Your task to perform on an android device: What's the weather going to be tomorrow? Image 0: 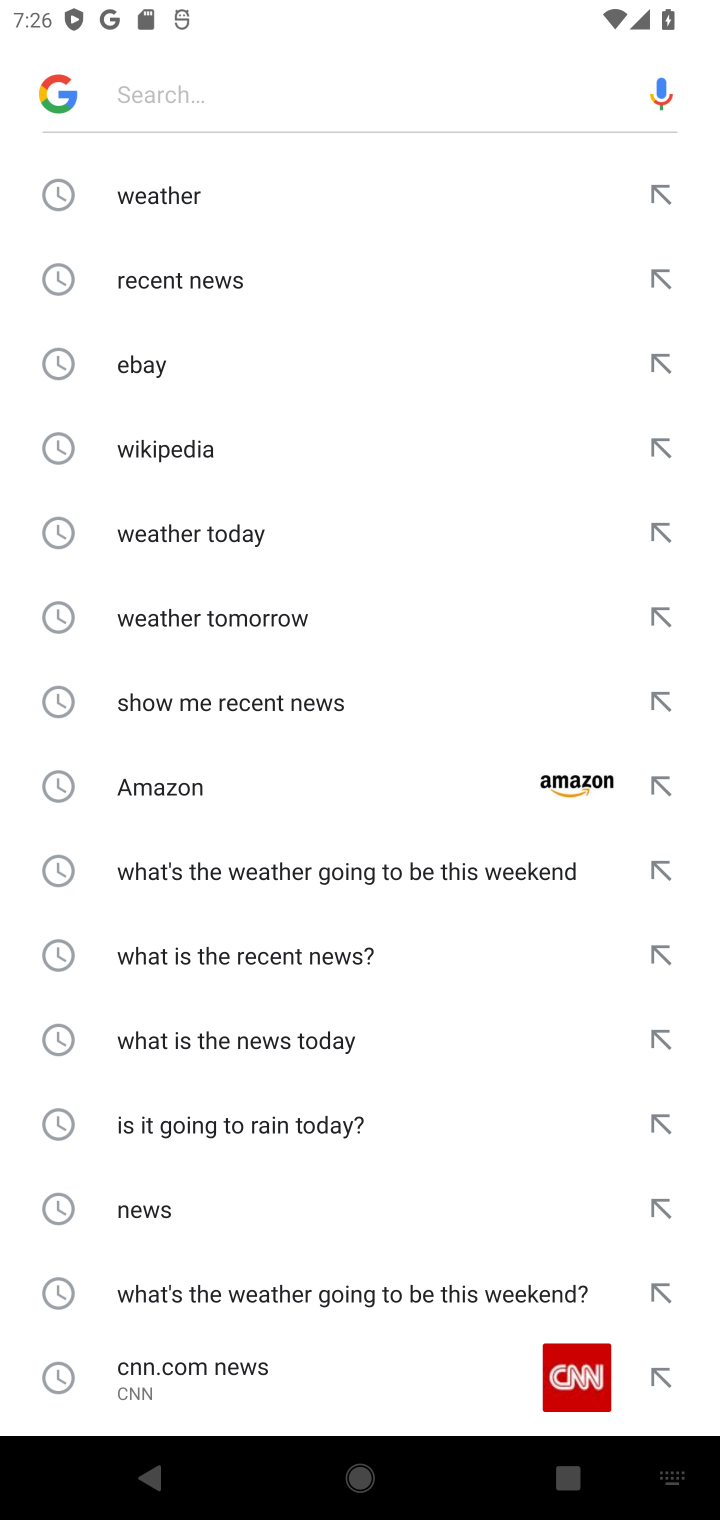
Step 0: press home button
Your task to perform on an android device: What's the weather going to be tomorrow? Image 1: 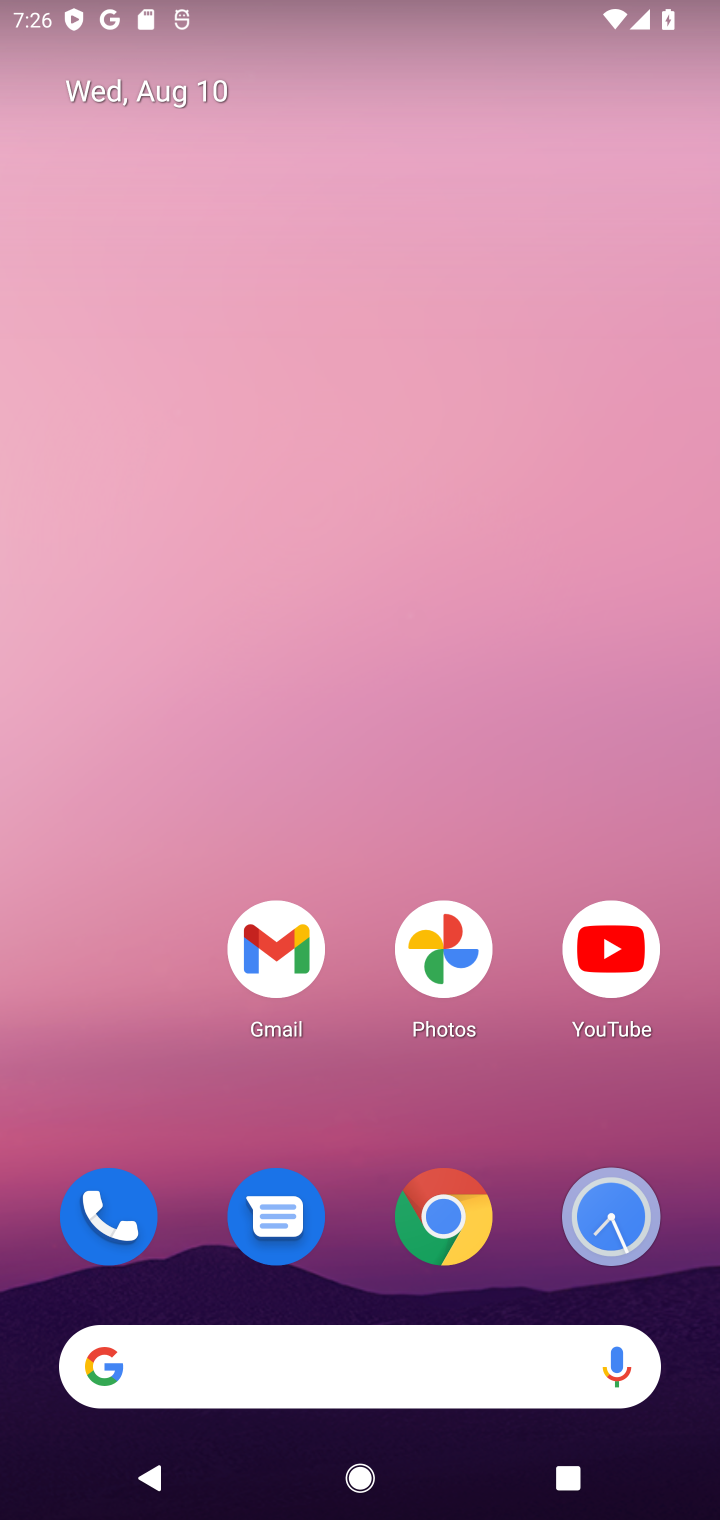
Step 1: click (390, 1380)
Your task to perform on an android device: What's the weather going to be tomorrow? Image 2: 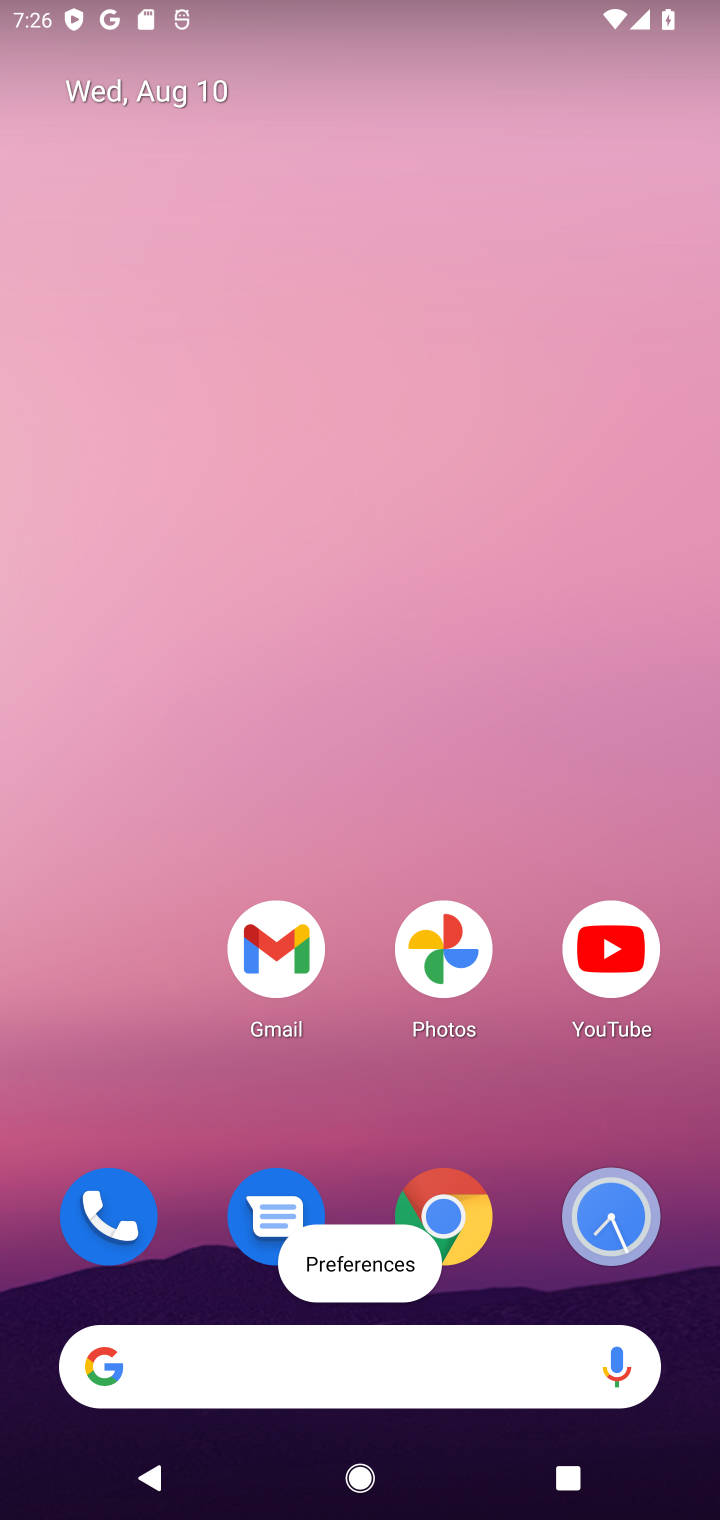
Step 2: click (280, 1368)
Your task to perform on an android device: What's the weather going to be tomorrow? Image 3: 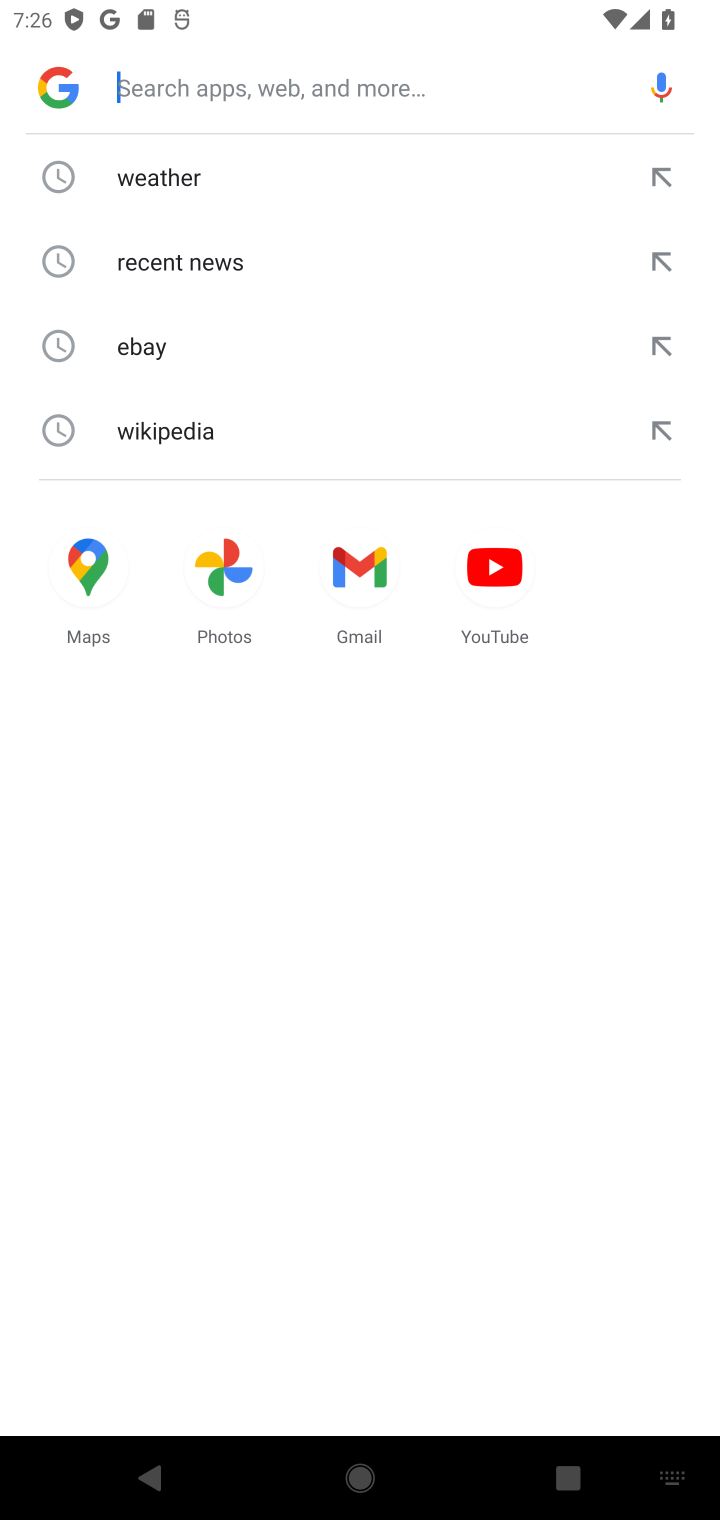
Step 3: click (200, 186)
Your task to perform on an android device: What's the weather going to be tomorrow? Image 4: 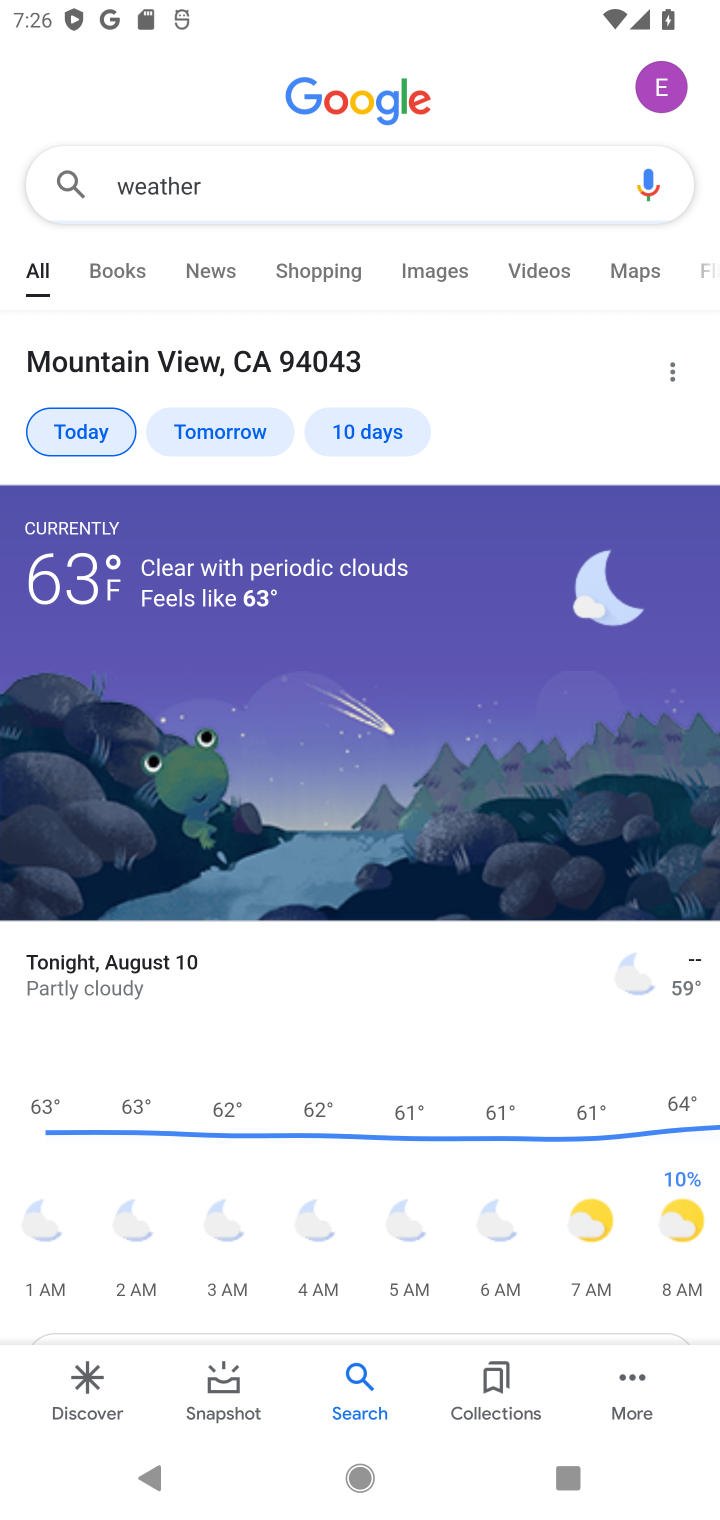
Step 4: click (250, 445)
Your task to perform on an android device: What's the weather going to be tomorrow? Image 5: 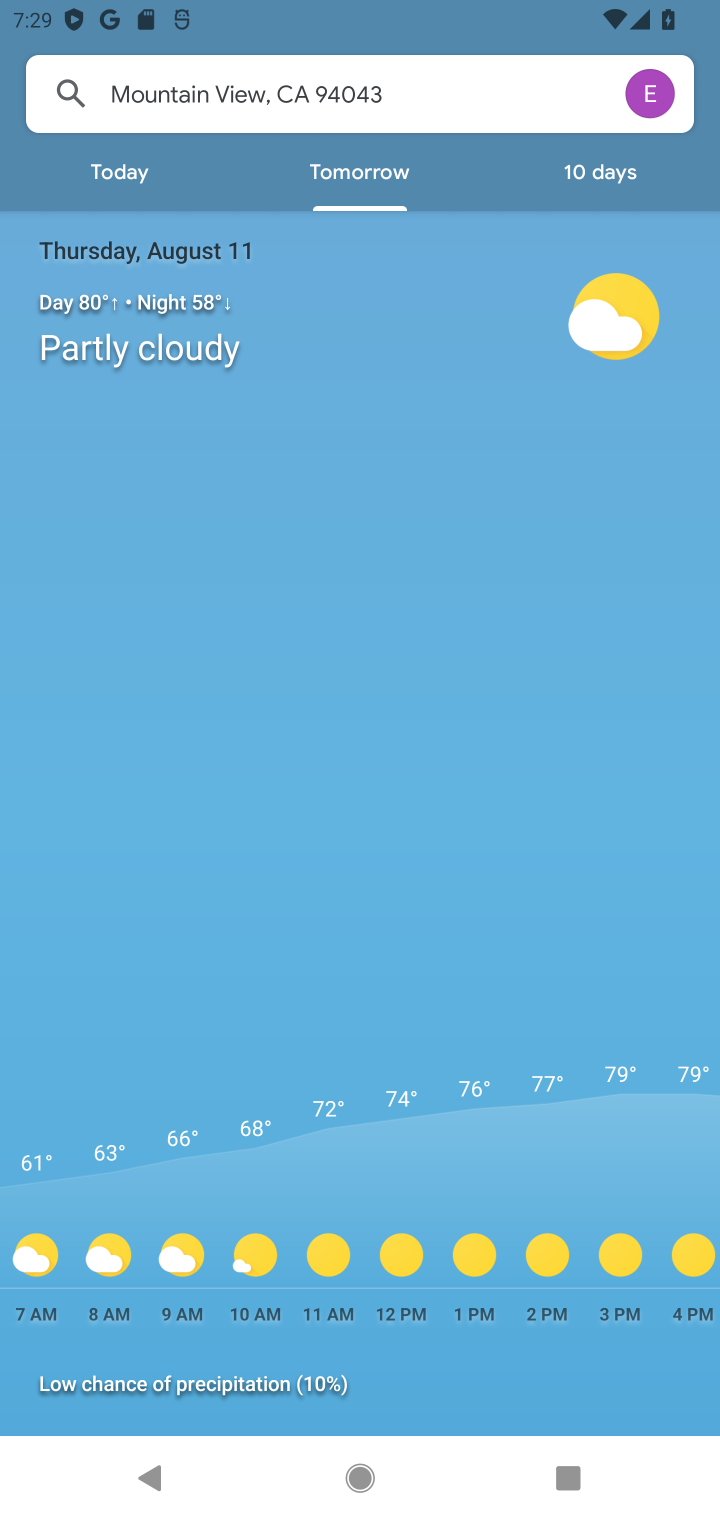
Step 5: press home button
Your task to perform on an android device: What's the weather going to be tomorrow? Image 6: 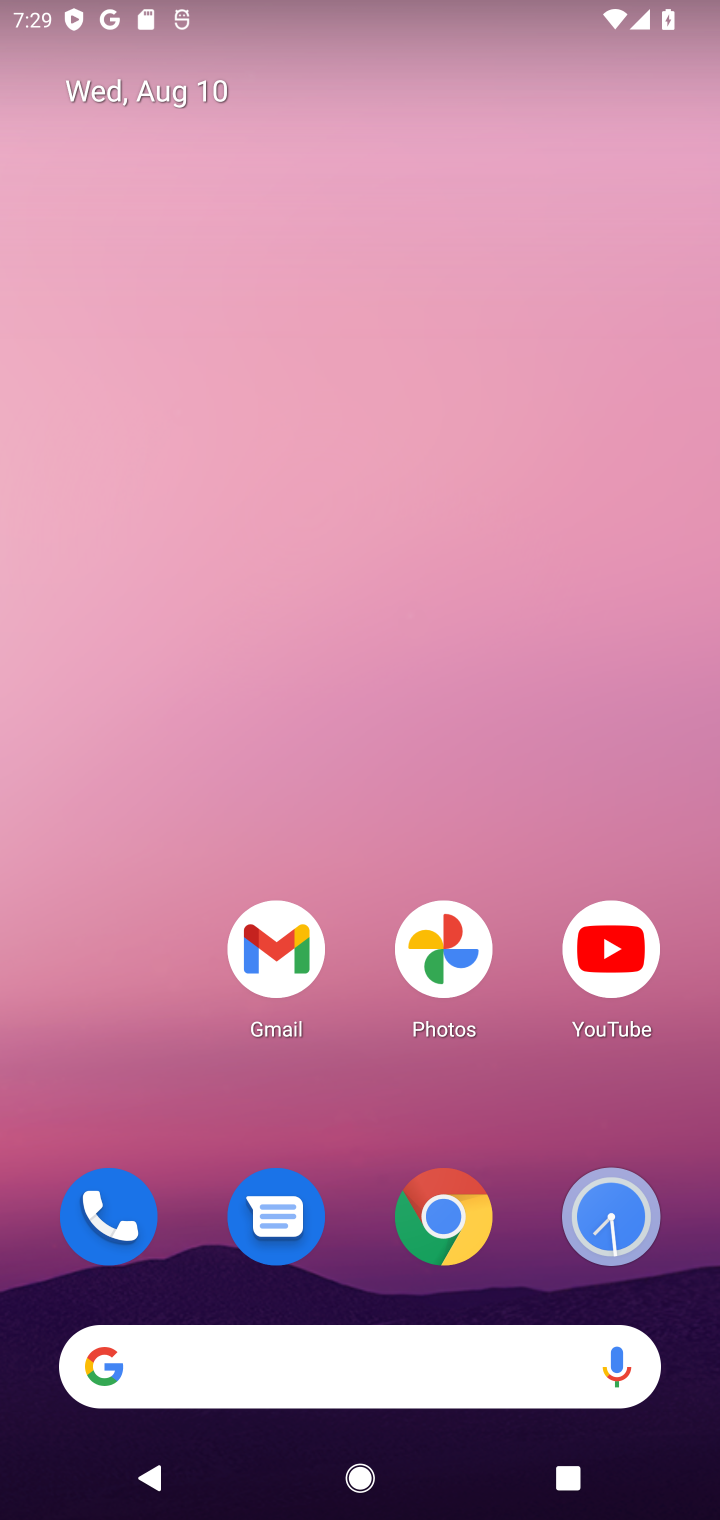
Step 6: click (343, 1368)
Your task to perform on an android device: What's the weather going to be tomorrow? Image 7: 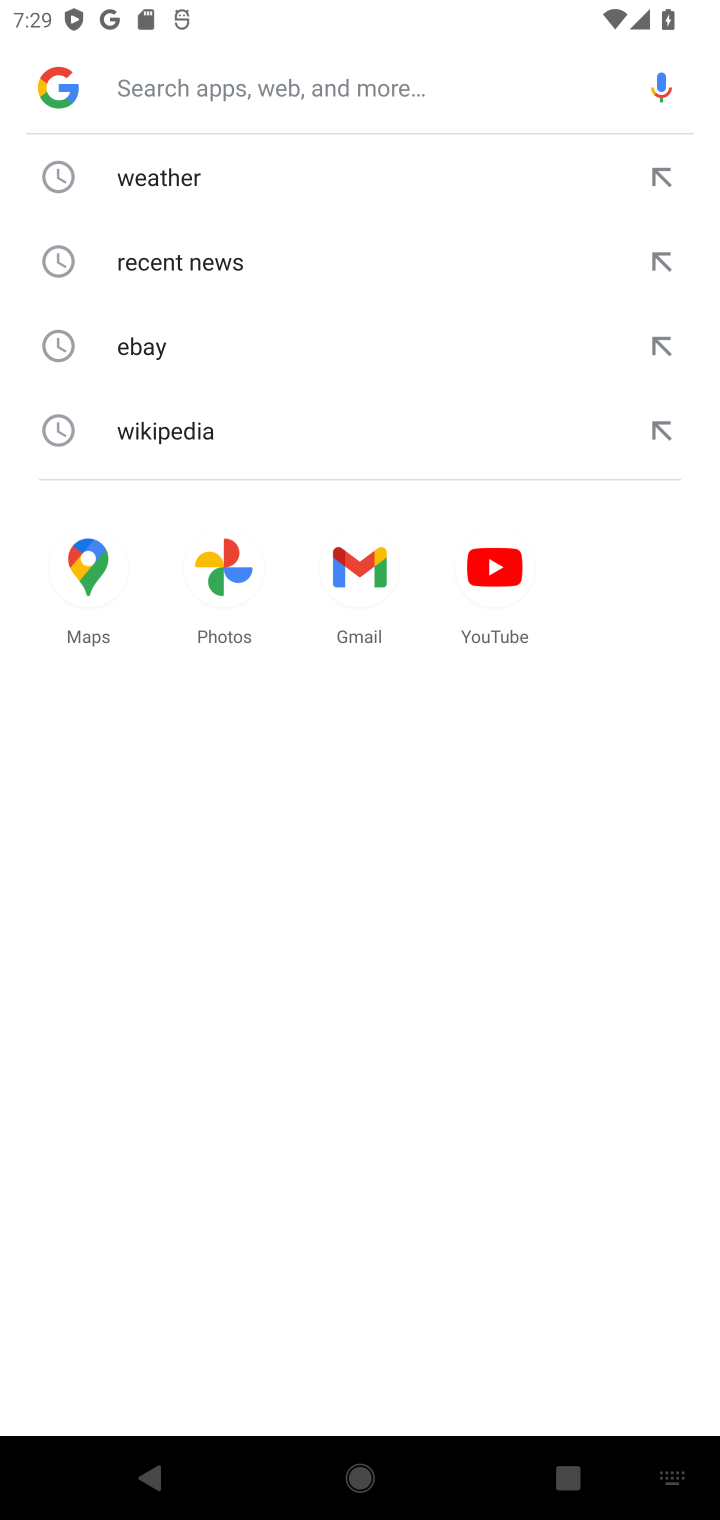
Step 7: click (284, 188)
Your task to perform on an android device: What's the weather going to be tomorrow? Image 8: 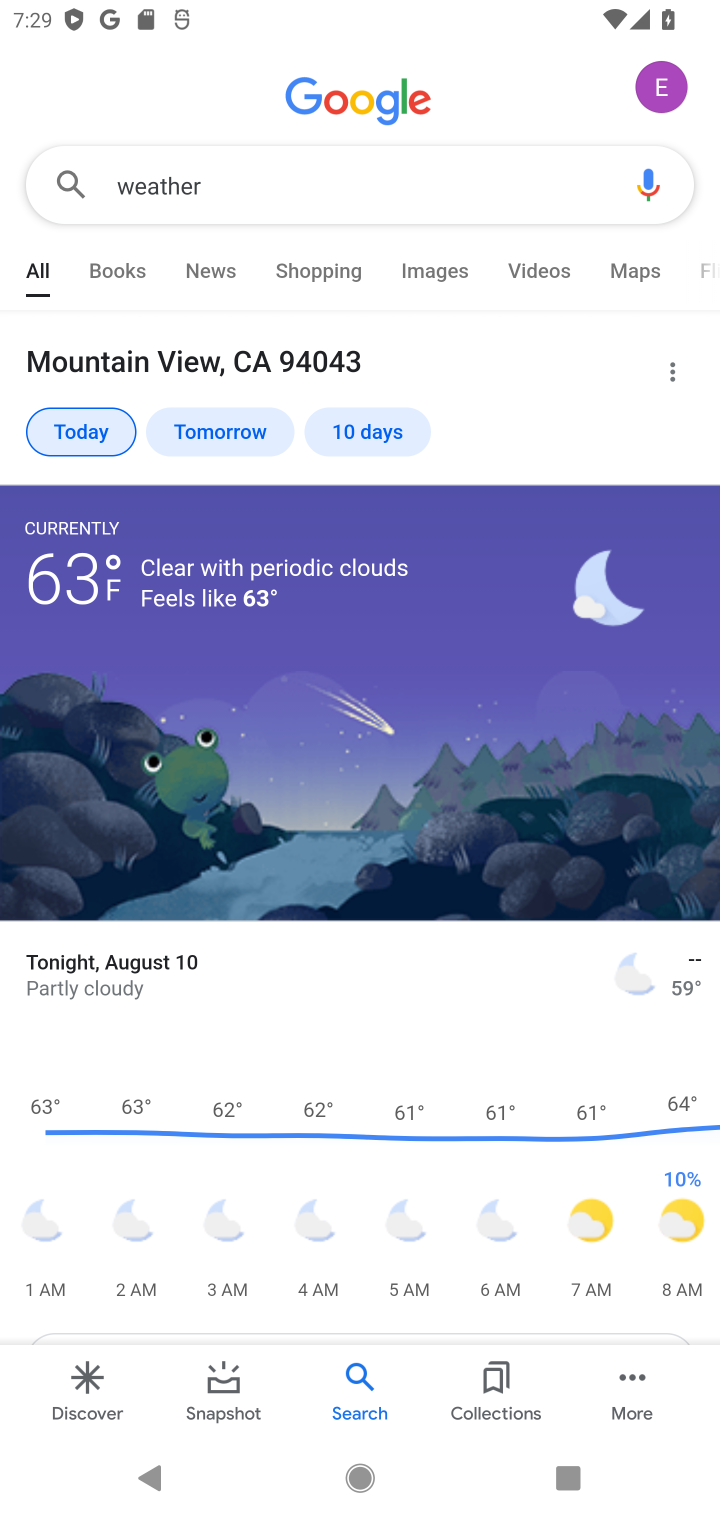
Step 8: click (229, 431)
Your task to perform on an android device: What's the weather going to be tomorrow? Image 9: 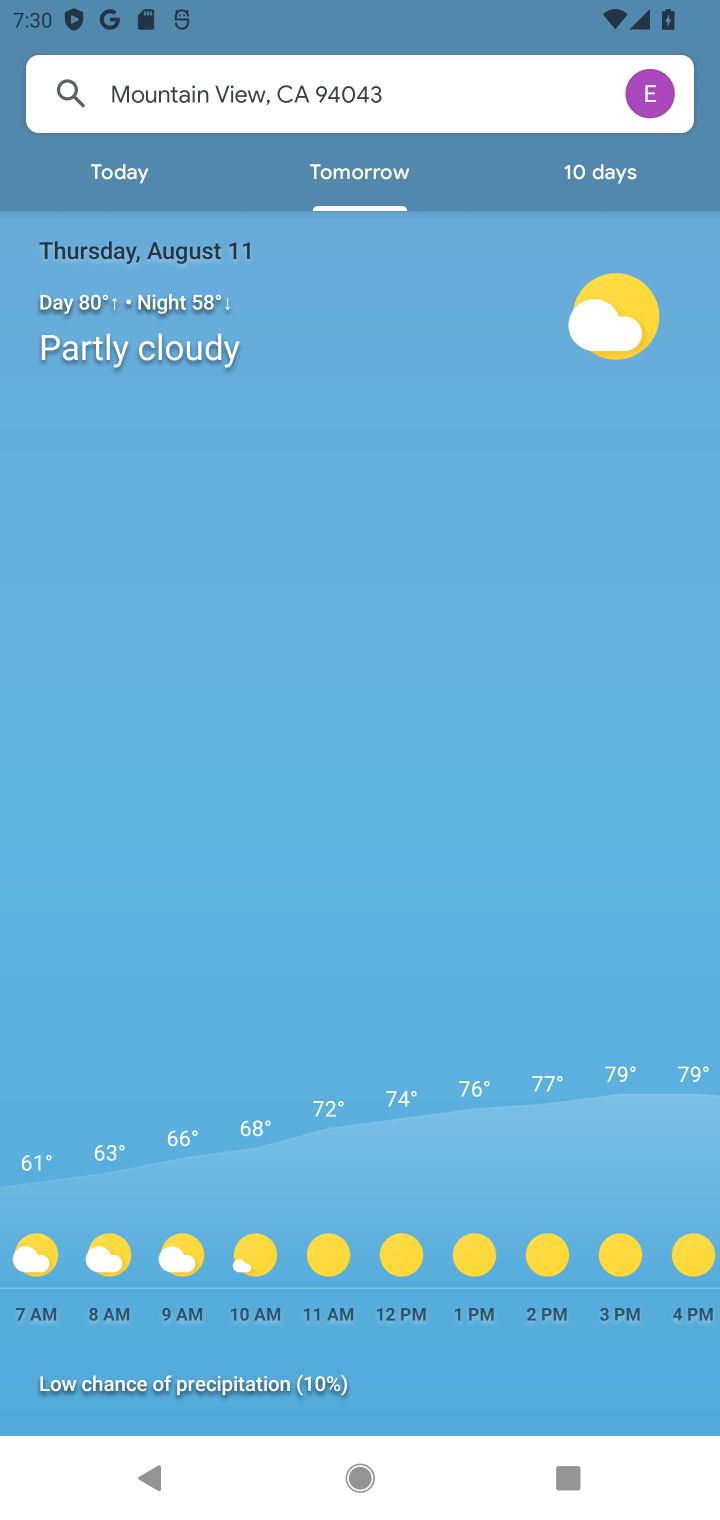
Step 9: task complete